Your task to perform on an android device: open app "Facebook" Image 0: 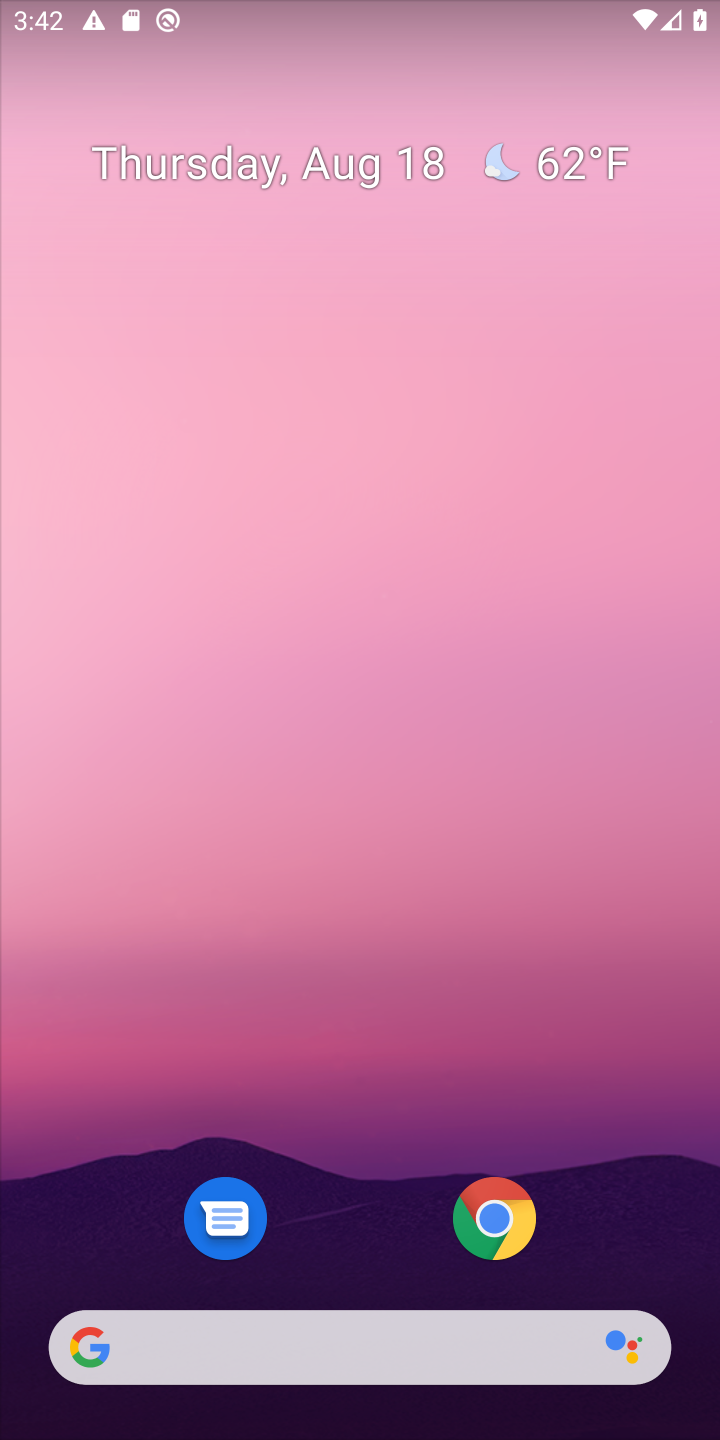
Step 0: drag from (325, 1142) to (286, 381)
Your task to perform on an android device: open app "Facebook" Image 1: 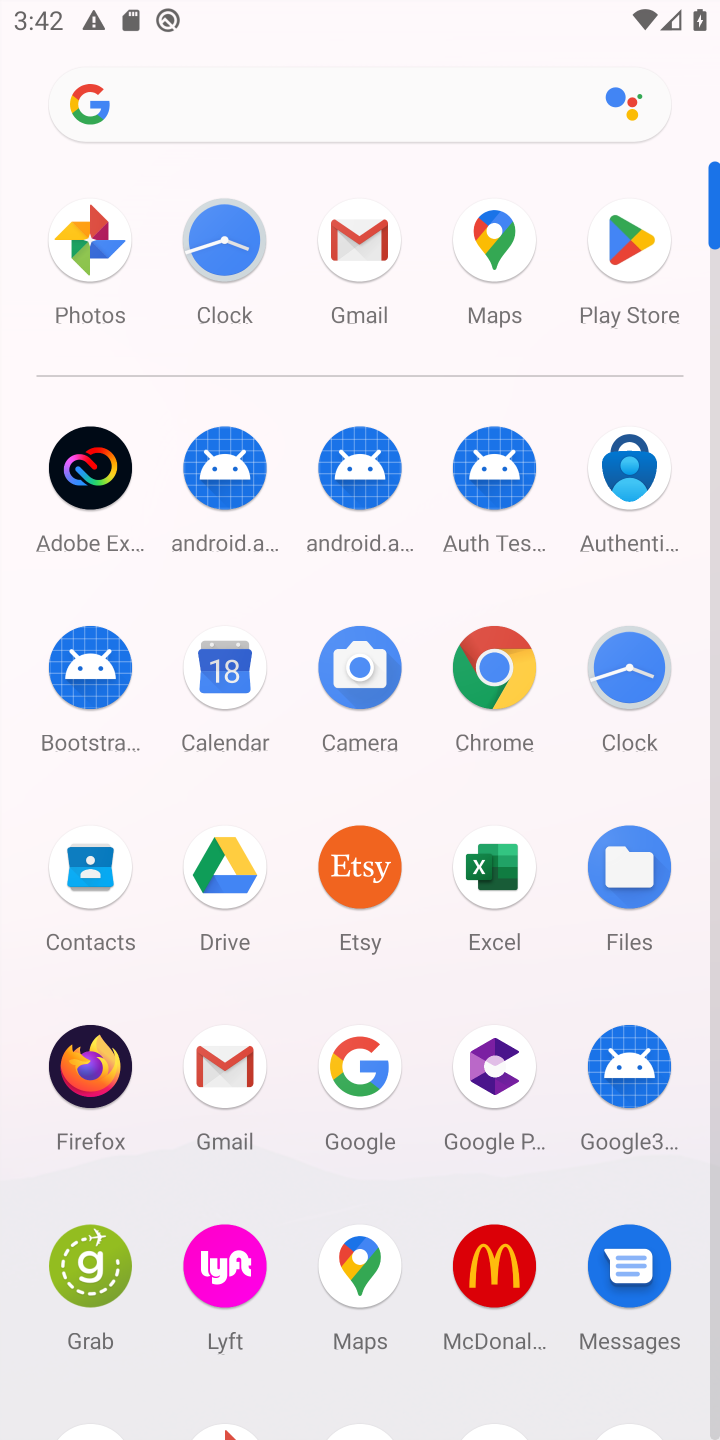
Step 1: click (625, 240)
Your task to perform on an android device: open app "Facebook" Image 2: 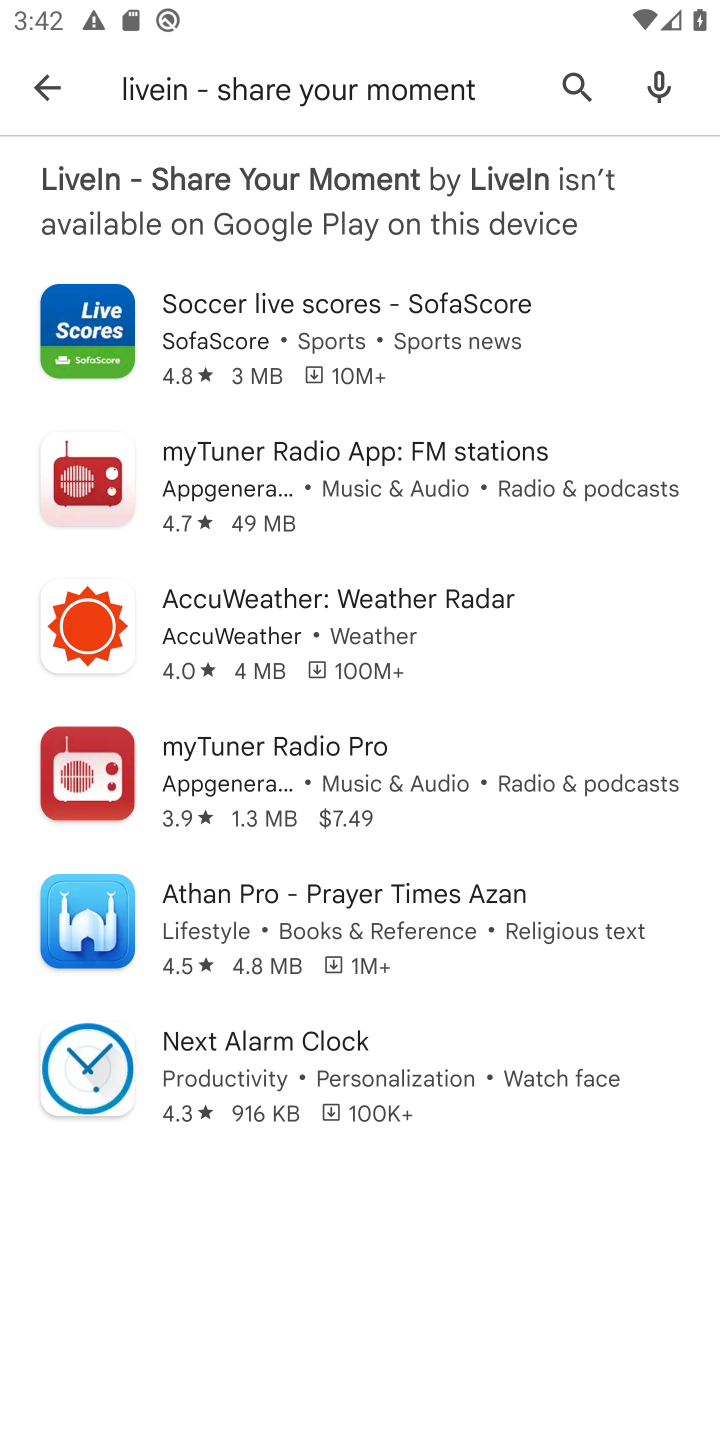
Step 2: click (577, 84)
Your task to perform on an android device: open app "Facebook" Image 3: 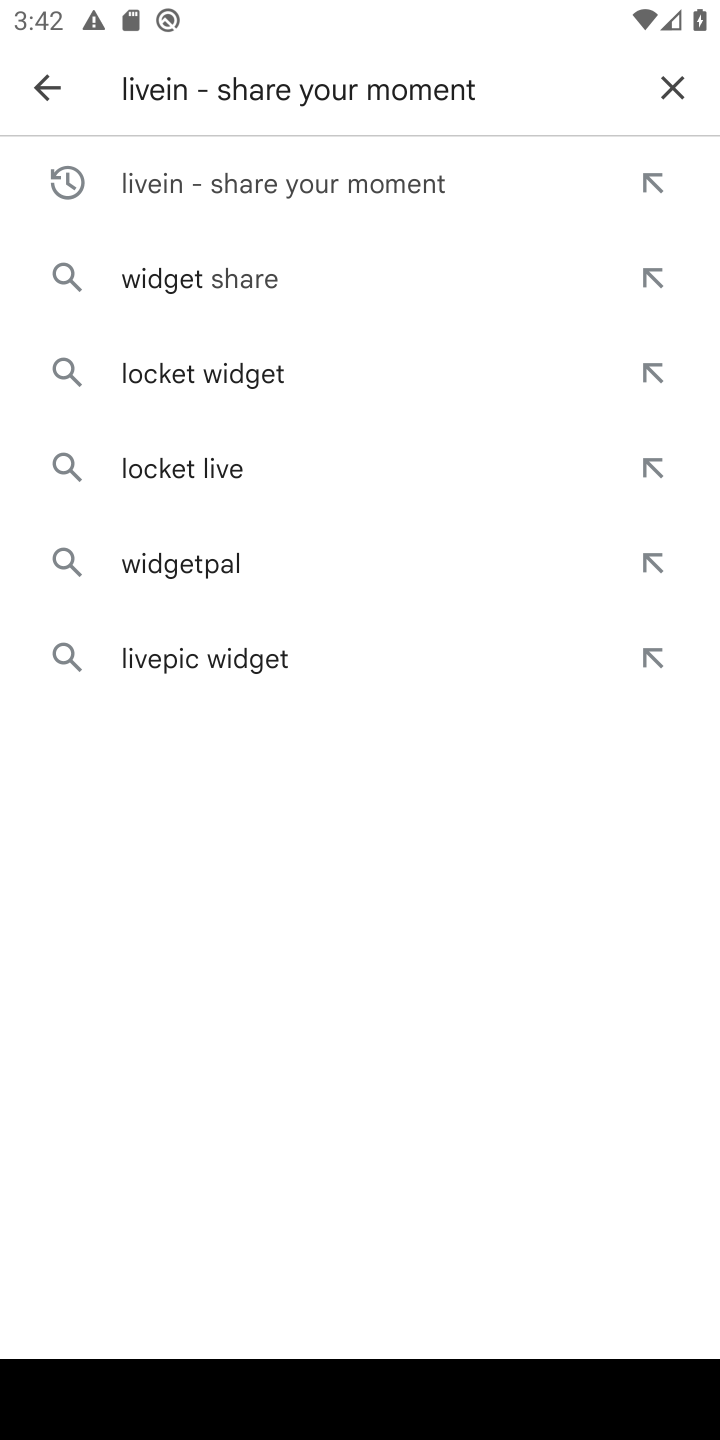
Step 3: click (650, 82)
Your task to perform on an android device: open app "Facebook" Image 4: 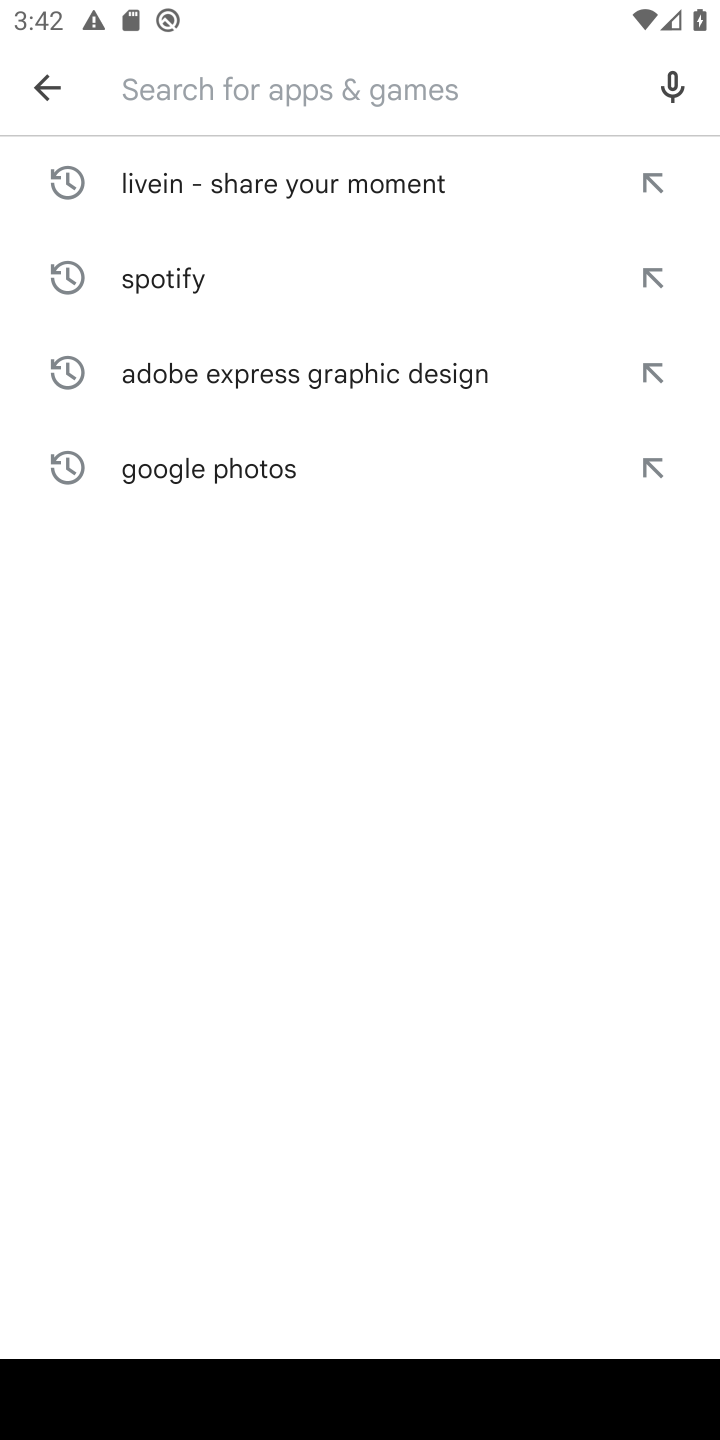
Step 4: click (395, 103)
Your task to perform on an android device: open app "Facebook" Image 5: 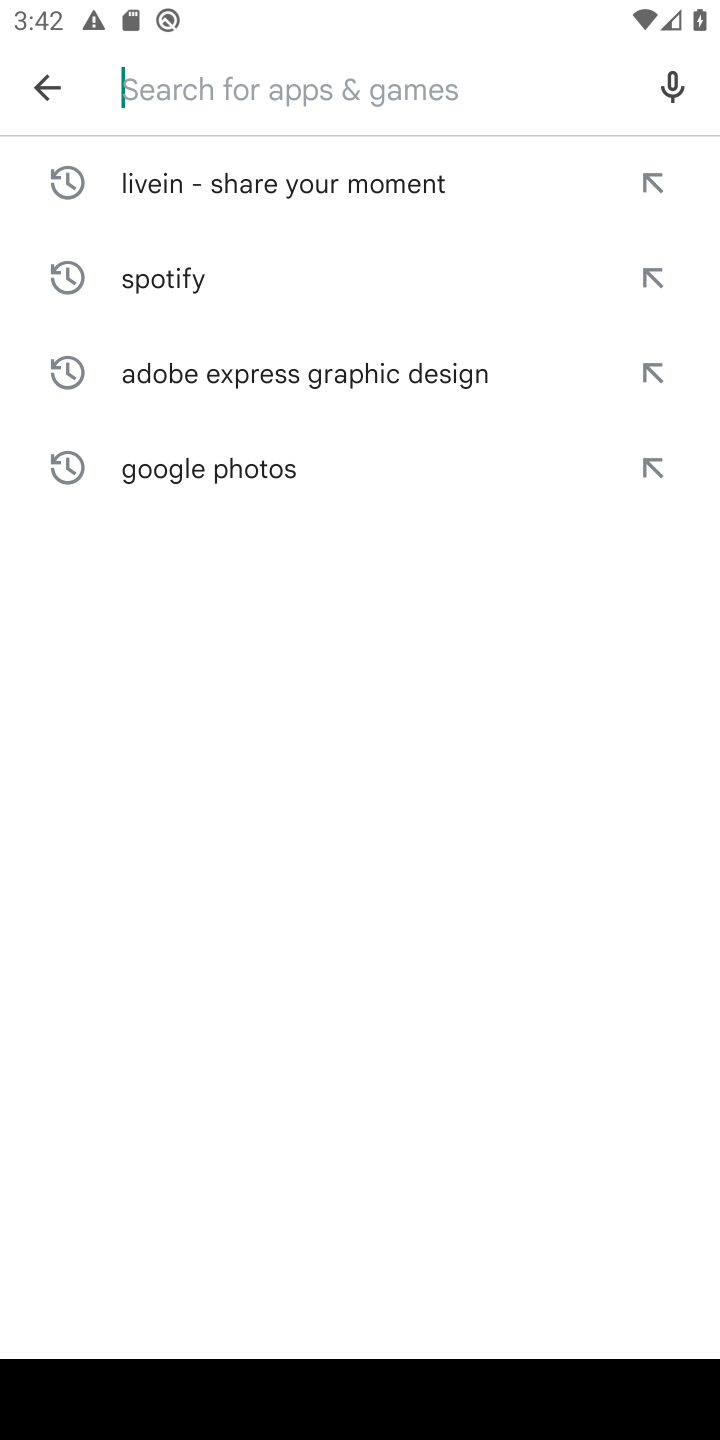
Step 5: type "Facebook"
Your task to perform on an android device: open app "Facebook" Image 6: 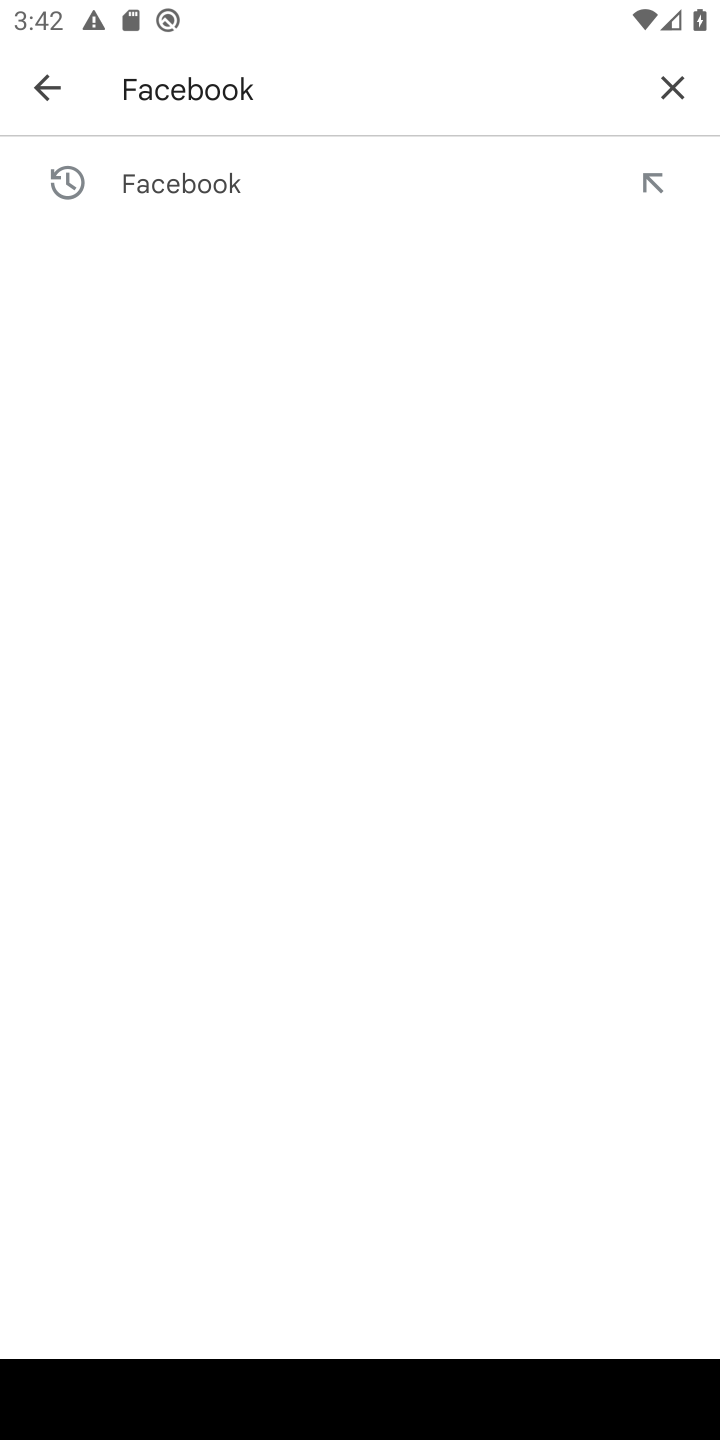
Step 6: click (186, 194)
Your task to perform on an android device: open app "Facebook" Image 7: 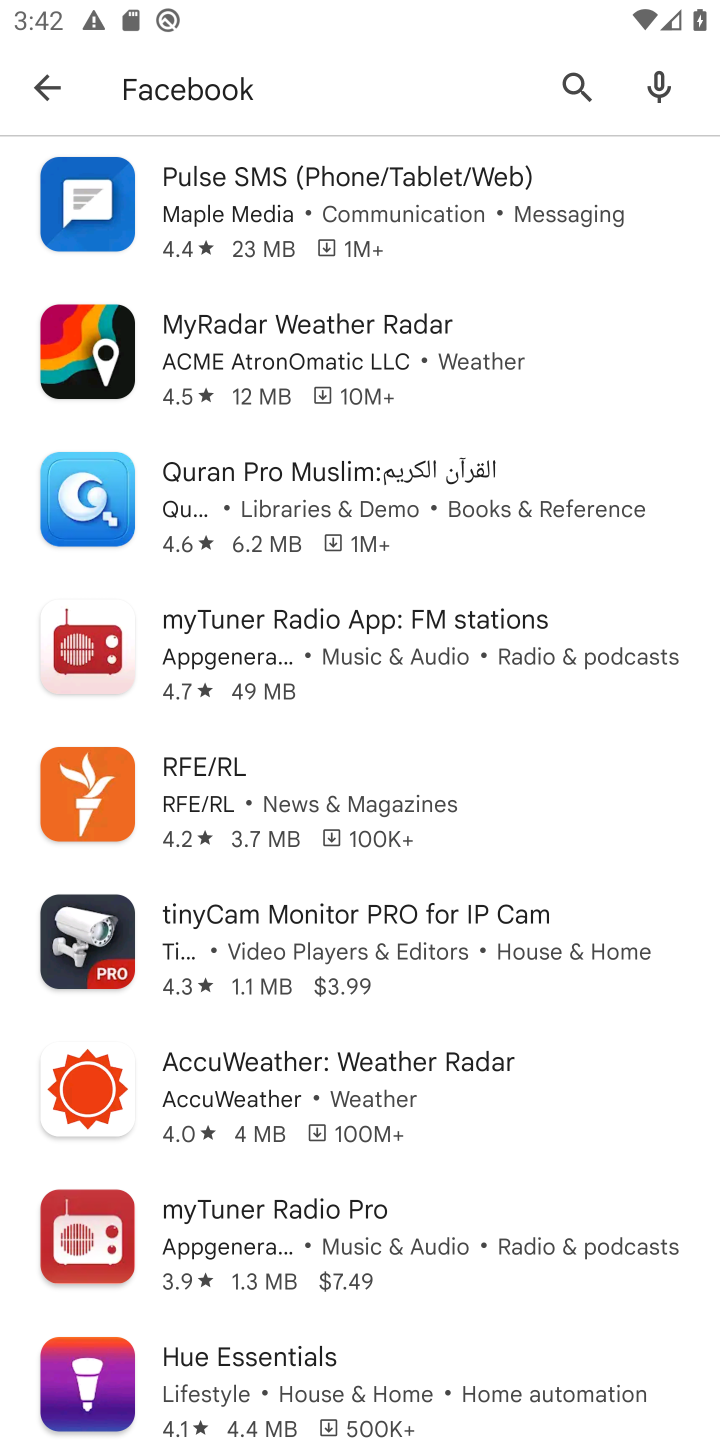
Step 7: task complete